Your task to perform on an android device: delete a single message in the gmail app Image 0: 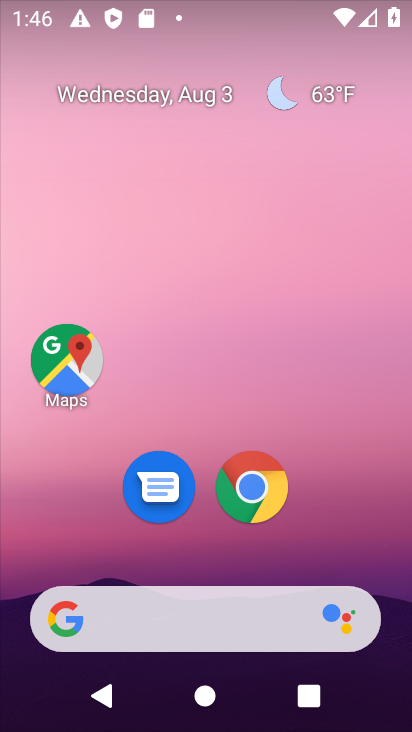
Step 0: drag from (348, 524) to (366, 5)
Your task to perform on an android device: delete a single message in the gmail app Image 1: 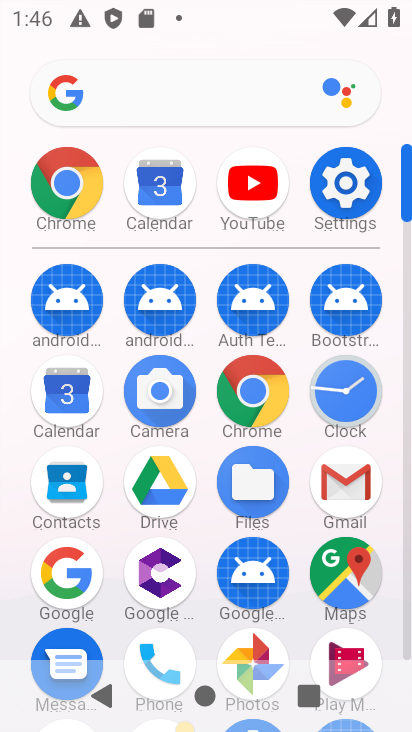
Step 1: click (342, 484)
Your task to perform on an android device: delete a single message in the gmail app Image 2: 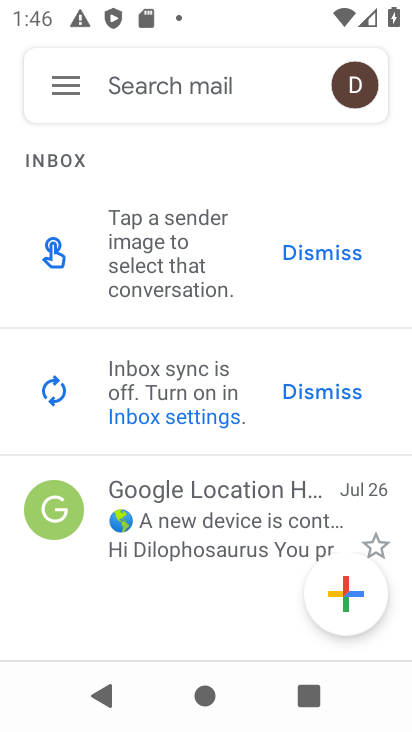
Step 2: click (57, 522)
Your task to perform on an android device: delete a single message in the gmail app Image 3: 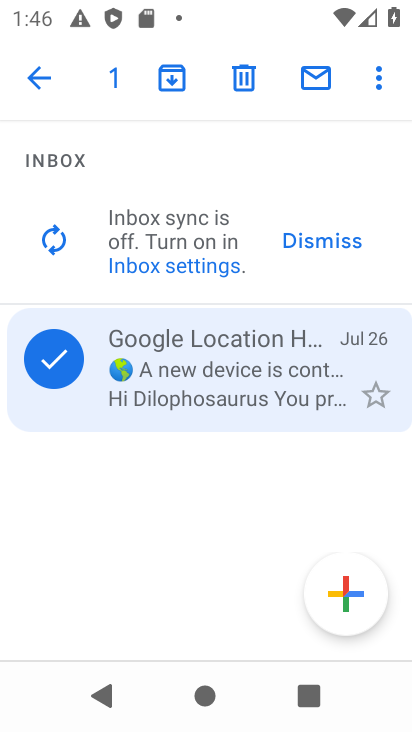
Step 3: click (227, 65)
Your task to perform on an android device: delete a single message in the gmail app Image 4: 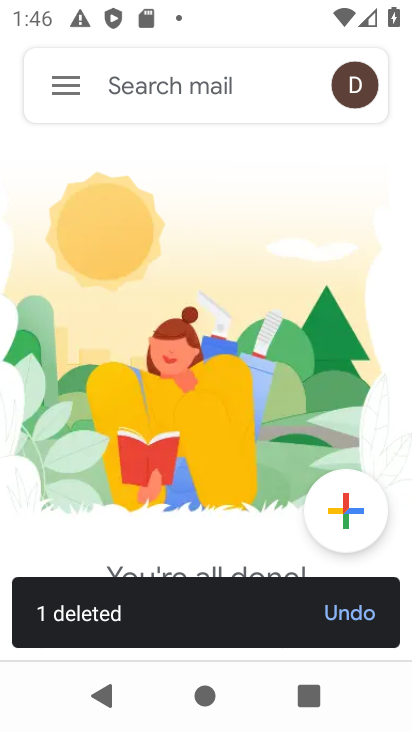
Step 4: task complete